Your task to perform on an android device: open wifi settings Image 0: 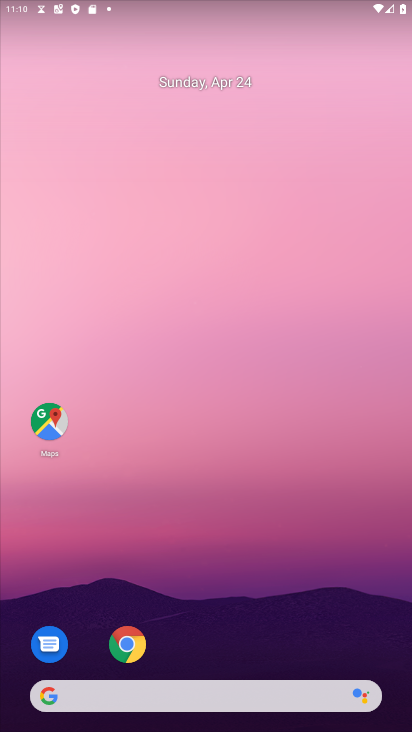
Step 0: drag from (289, 626) to (407, 119)
Your task to perform on an android device: open wifi settings Image 1: 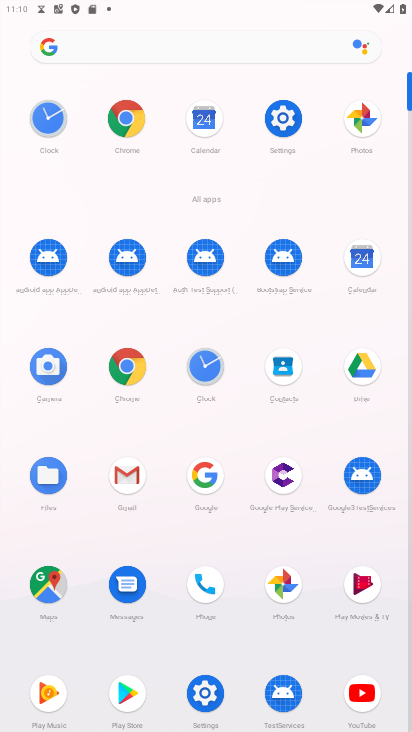
Step 1: click (293, 123)
Your task to perform on an android device: open wifi settings Image 2: 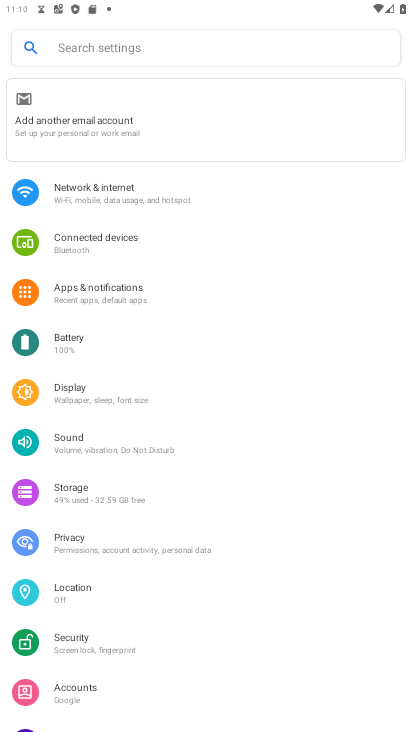
Step 2: click (93, 199)
Your task to perform on an android device: open wifi settings Image 3: 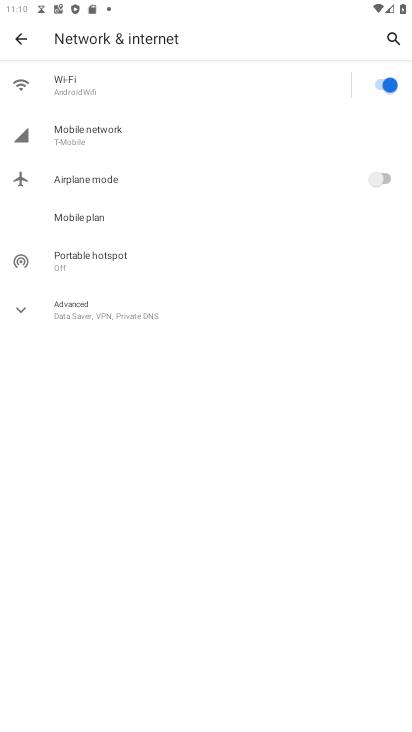
Step 3: click (82, 85)
Your task to perform on an android device: open wifi settings Image 4: 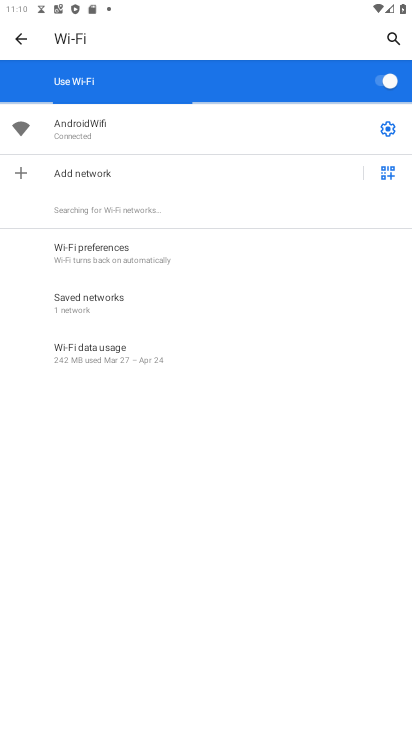
Step 4: task complete